Your task to perform on an android device: When is my next meeting? Image 0: 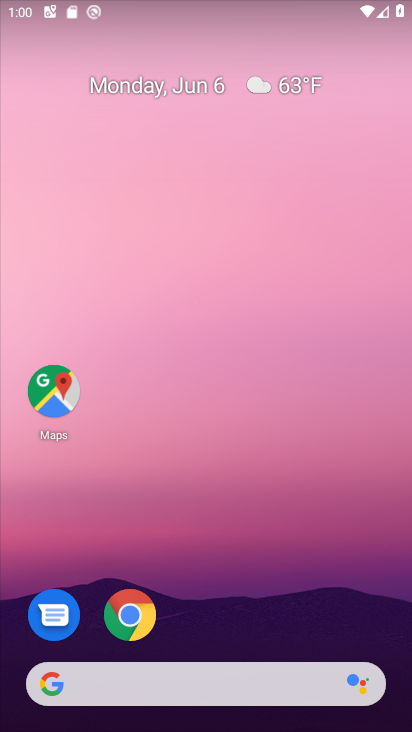
Step 0: drag from (257, 646) to (304, 59)
Your task to perform on an android device: When is my next meeting? Image 1: 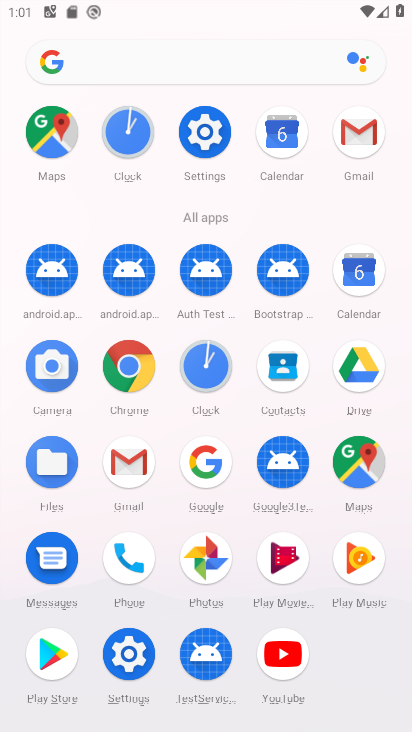
Step 1: click (352, 289)
Your task to perform on an android device: When is my next meeting? Image 2: 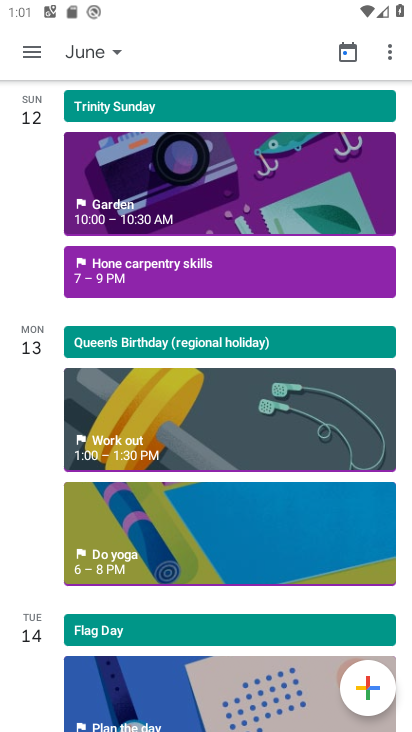
Step 2: click (97, 49)
Your task to perform on an android device: When is my next meeting? Image 3: 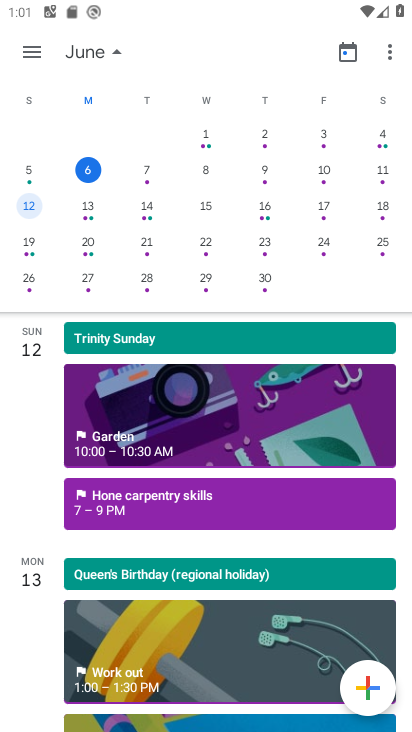
Step 3: click (95, 166)
Your task to perform on an android device: When is my next meeting? Image 4: 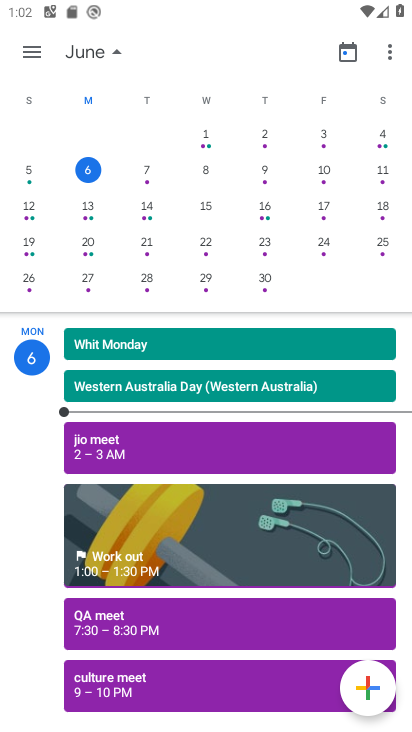
Step 4: task complete